Your task to perform on an android device: Search for vegetarian restaurants on Maps Image 0: 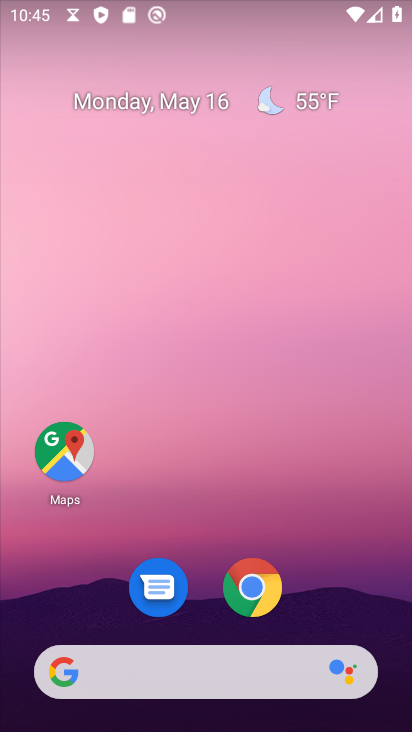
Step 0: drag from (320, 570) to (248, 64)
Your task to perform on an android device: Search for vegetarian restaurants on Maps Image 1: 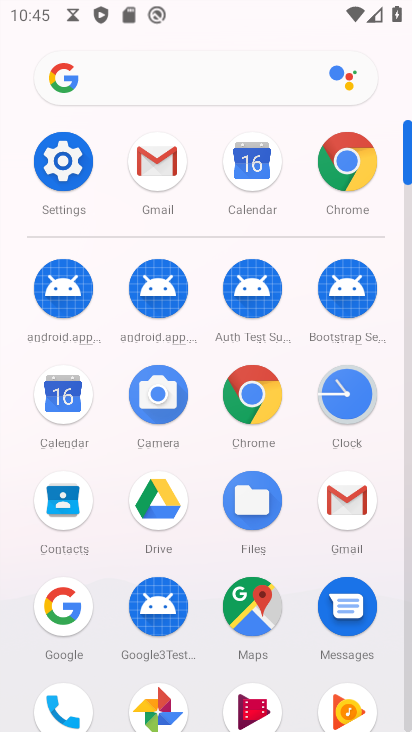
Step 1: drag from (18, 506) to (14, 180)
Your task to perform on an android device: Search for vegetarian restaurants on Maps Image 2: 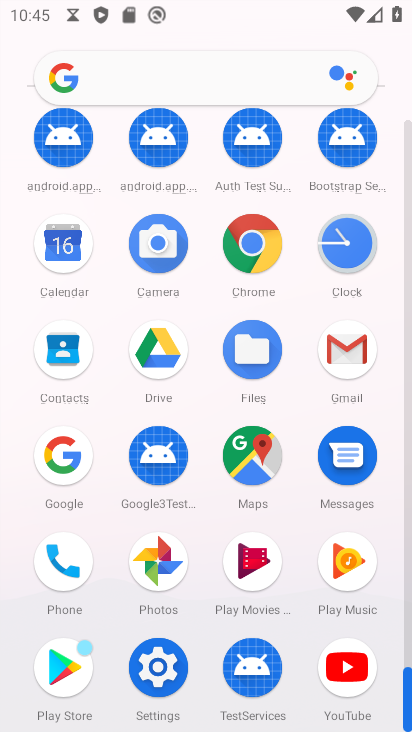
Step 2: click (248, 453)
Your task to perform on an android device: Search for vegetarian restaurants on Maps Image 3: 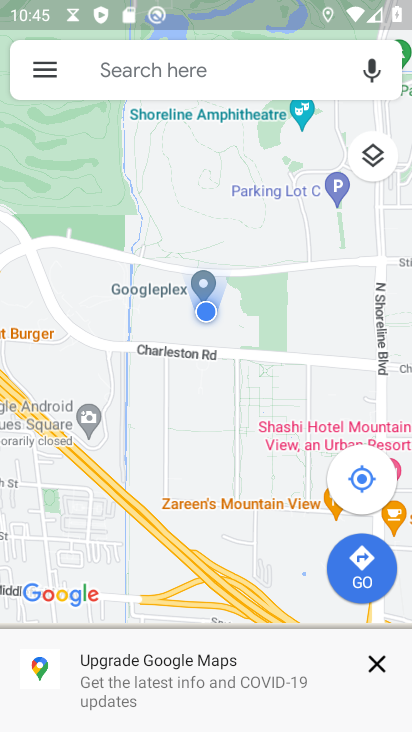
Step 3: click (229, 65)
Your task to perform on an android device: Search for vegetarian restaurants on Maps Image 4: 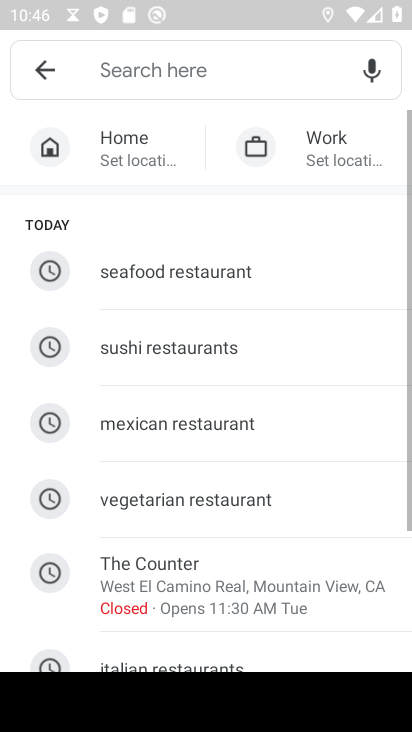
Step 4: click (183, 60)
Your task to perform on an android device: Search for vegetarian restaurants on Maps Image 5: 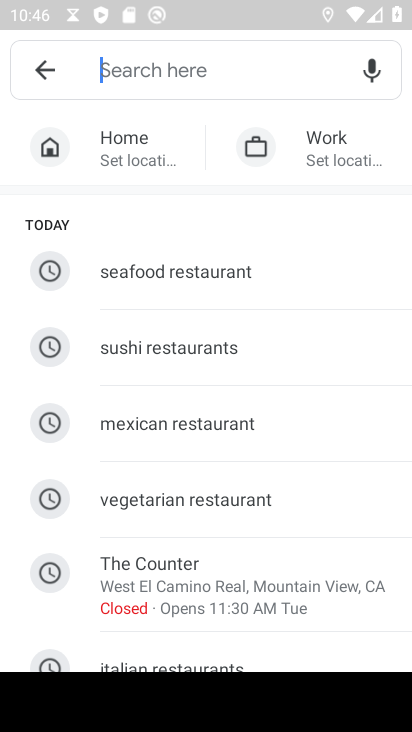
Step 5: click (195, 502)
Your task to perform on an android device: Search for vegetarian restaurants on Maps Image 6: 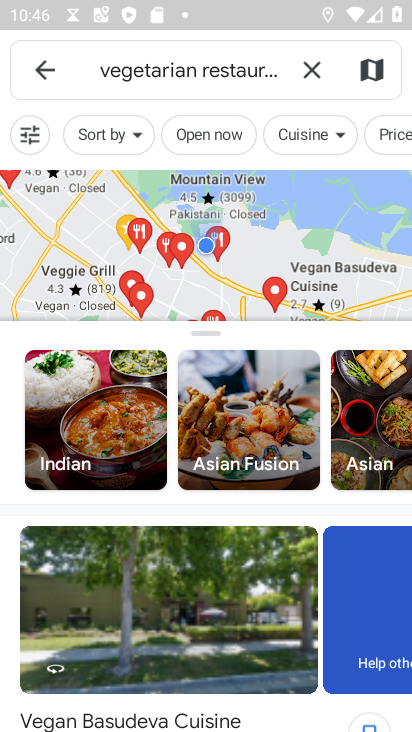
Step 6: task complete